Your task to perform on an android device: Go to location settings Image 0: 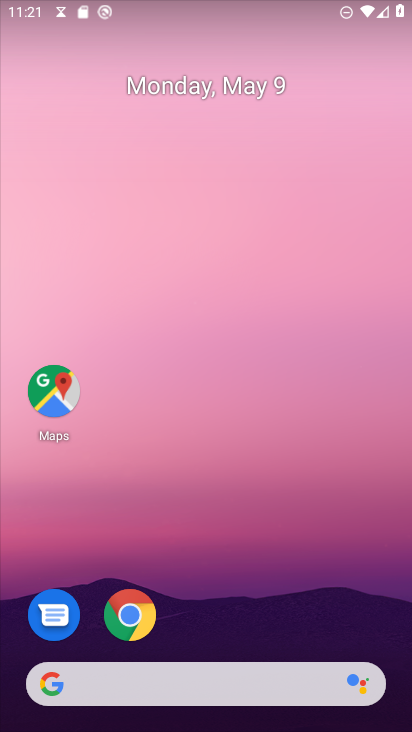
Step 0: drag from (211, 723) to (208, 162)
Your task to perform on an android device: Go to location settings Image 1: 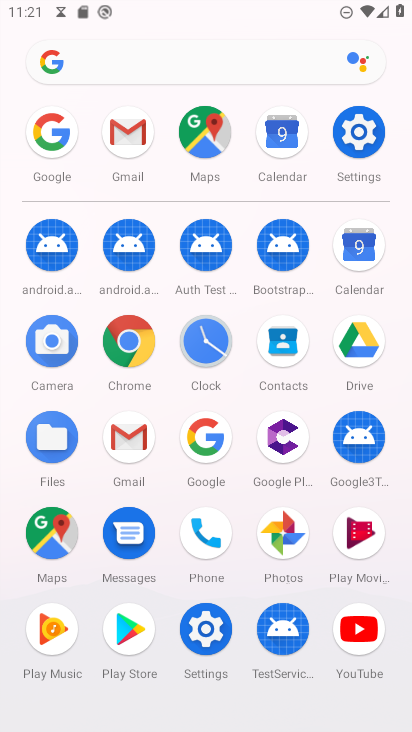
Step 1: click (359, 129)
Your task to perform on an android device: Go to location settings Image 2: 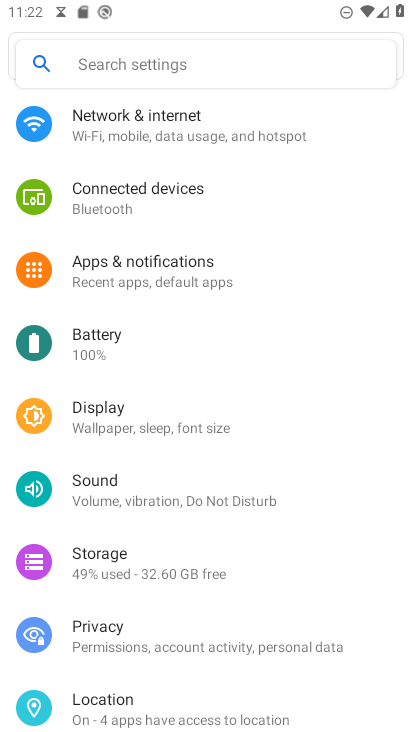
Step 2: click (122, 706)
Your task to perform on an android device: Go to location settings Image 3: 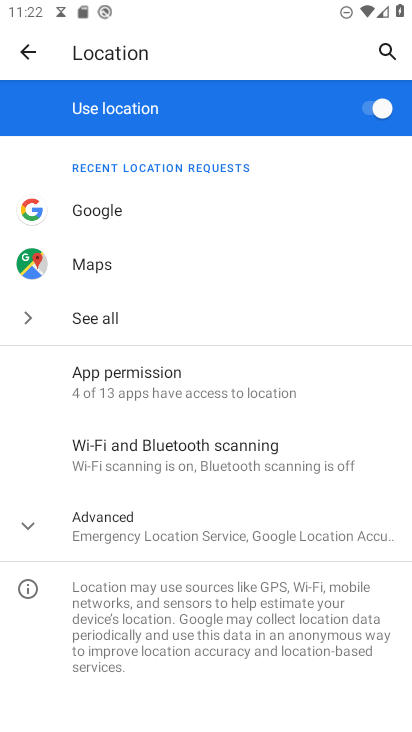
Step 3: task complete